Your task to perform on an android device: clear all cookies in the chrome app Image 0: 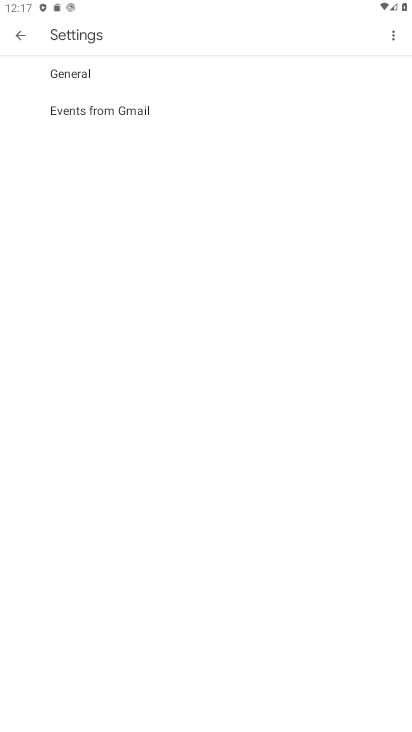
Step 0: press home button
Your task to perform on an android device: clear all cookies in the chrome app Image 1: 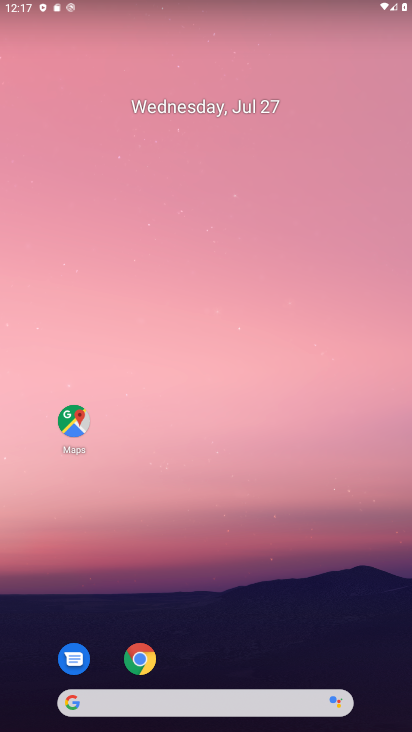
Step 1: click (137, 657)
Your task to perform on an android device: clear all cookies in the chrome app Image 2: 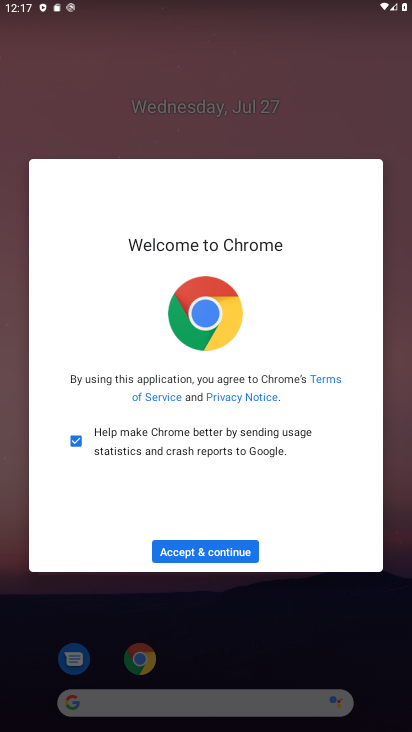
Step 2: click (199, 545)
Your task to perform on an android device: clear all cookies in the chrome app Image 3: 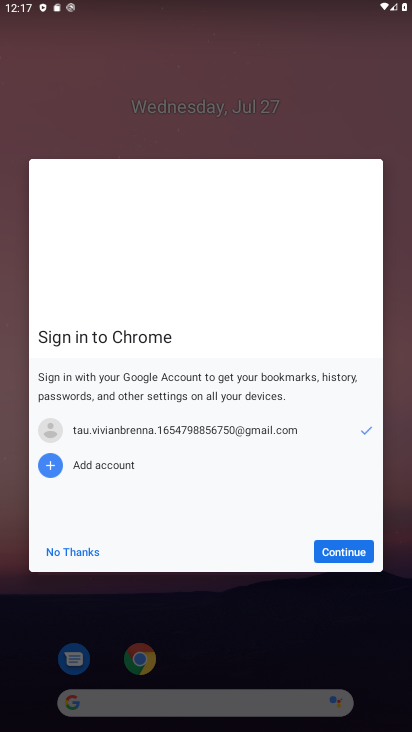
Step 3: click (331, 546)
Your task to perform on an android device: clear all cookies in the chrome app Image 4: 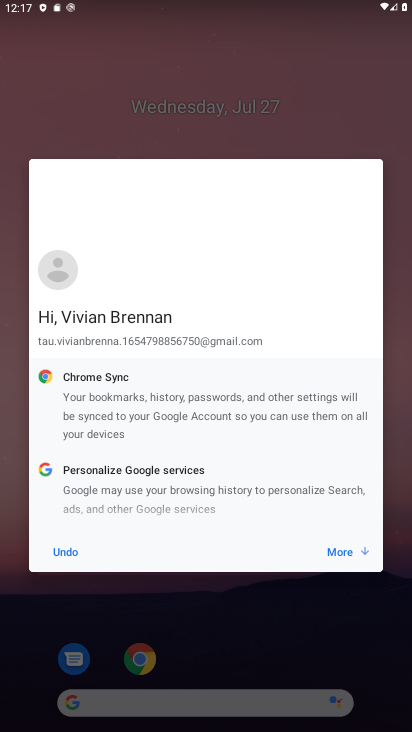
Step 4: click (350, 544)
Your task to perform on an android device: clear all cookies in the chrome app Image 5: 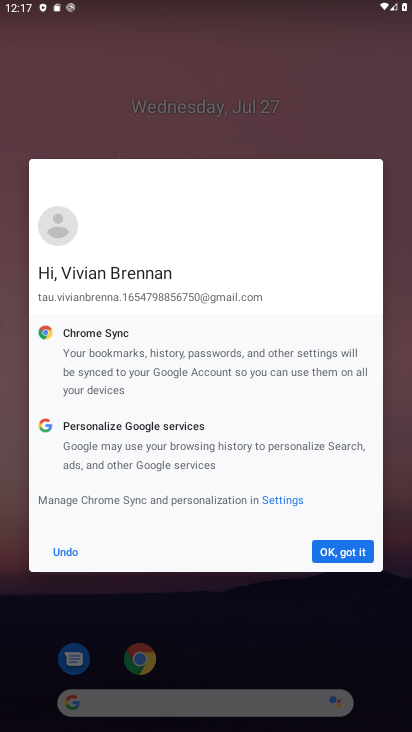
Step 5: click (329, 540)
Your task to perform on an android device: clear all cookies in the chrome app Image 6: 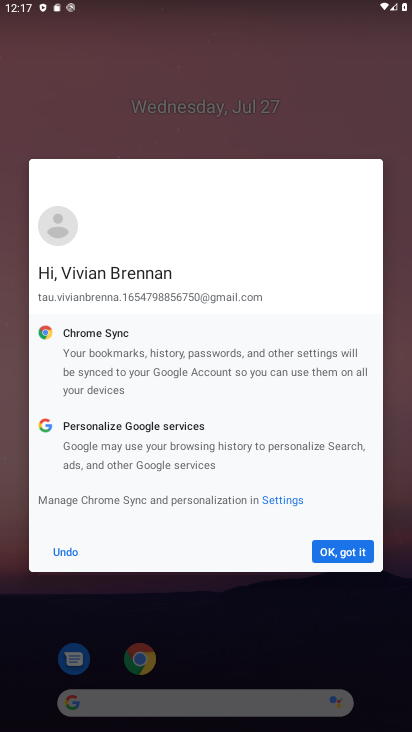
Step 6: click (329, 541)
Your task to perform on an android device: clear all cookies in the chrome app Image 7: 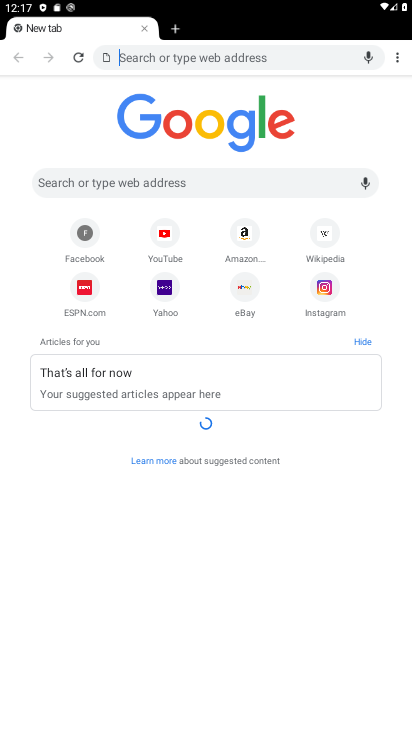
Step 7: click (393, 58)
Your task to perform on an android device: clear all cookies in the chrome app Image 8: 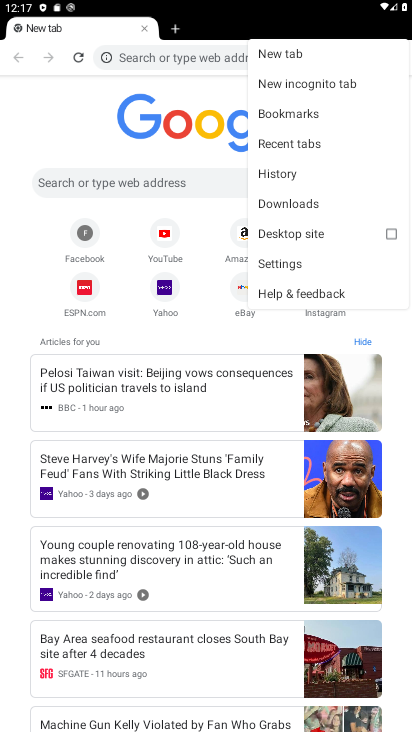
Step 8: click (279, 172)
Your task to perform on an android device: clear all cookies in the chrome app Image 9: 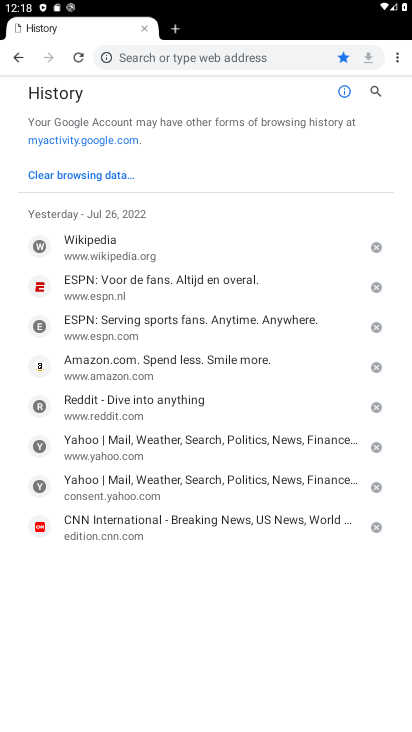
Step 9: click (91, 176)
Your task to perform on an android device: clear all cookies in the chrome app Image 10: 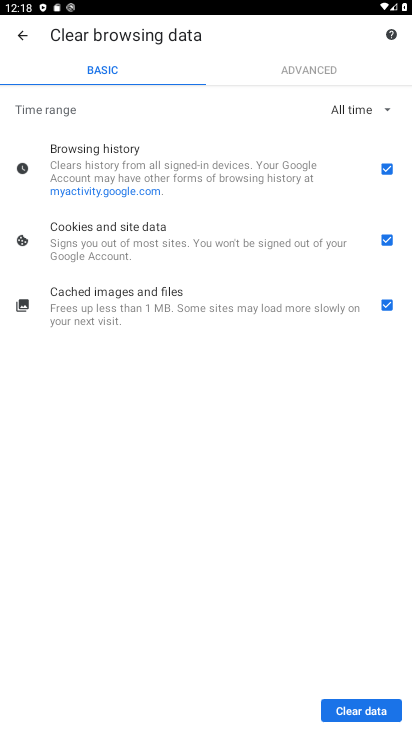
Step 10: click (386, 707)
Your task to perform on an android device: clear all cookies in the chrome app Image 11: 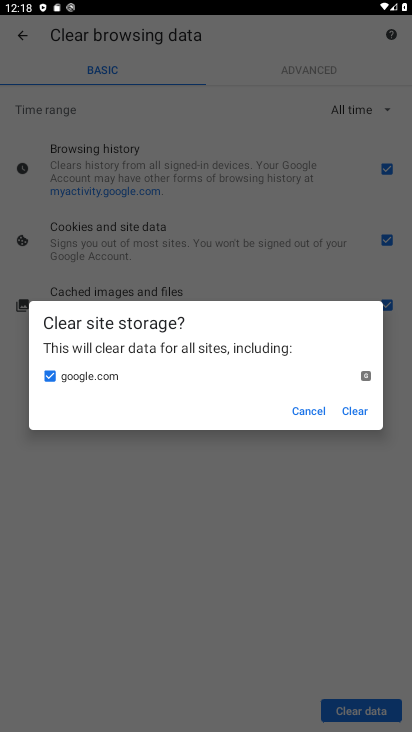
Step 11: click (359, 409)
Your task to perform on an android device: clear all cookies in the chrome app Image 12: 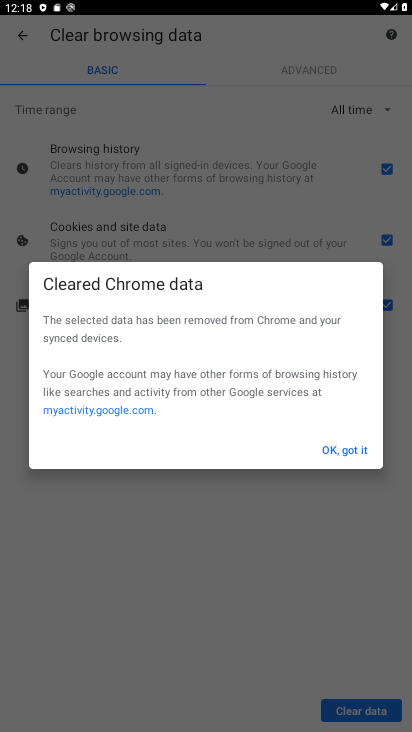
Step 12: click (338, 449)
Your task to perform on an android device: clear all cookies in the chrome app Image 13: 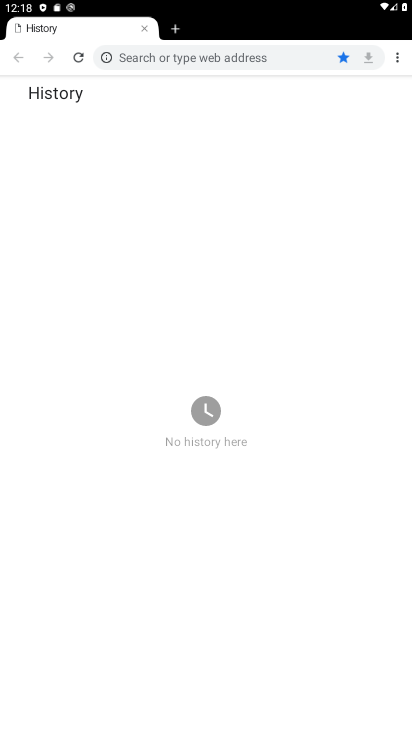
Step 13: task complete